Your task to perform on an android device: Open internet settings Image 0: 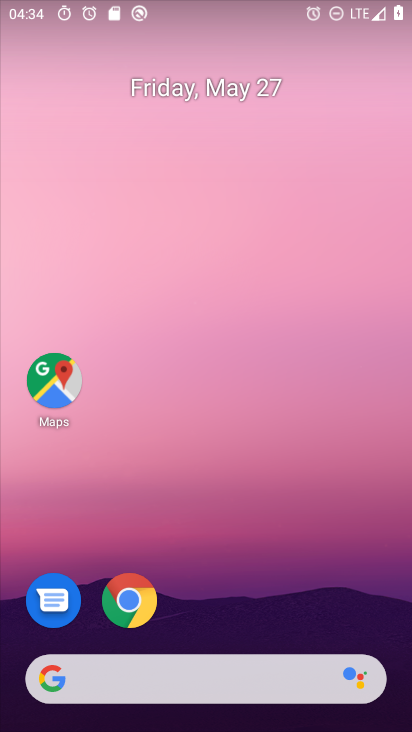
Step 0: click (171, 86)
Your task to perform on an android device: Open internet settings Image 1: 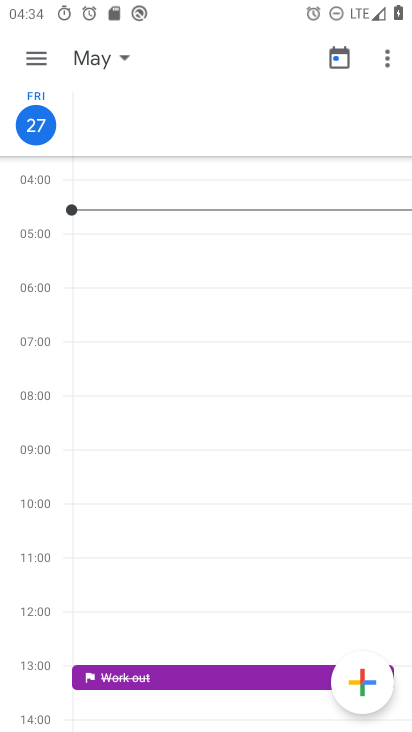
Step 1: press home button
Your task to perform on an android device: Open internet settings Image 2: 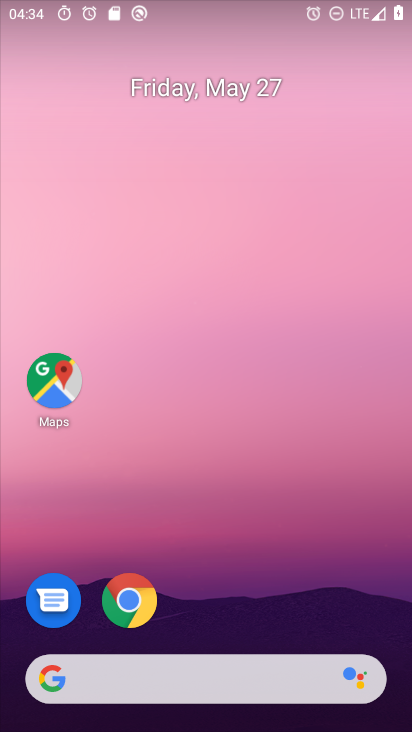
Step 2: drag from (247, 726) to (219, 193)
Your task to perform on an android device: Open internet settings Image 3: 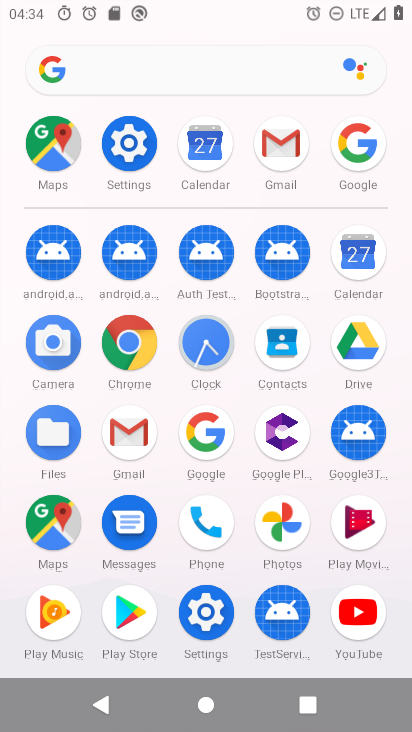
Step 3: click (128, 143)
Your task to perform on an android device: Open internet settings Image 4: 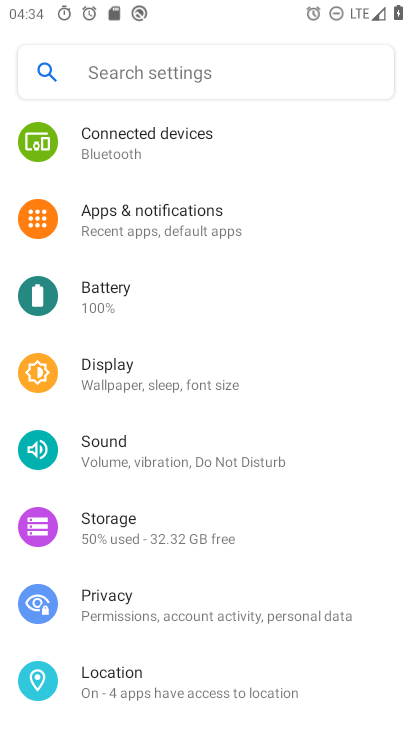
Step 4: drag from (212, 156) to (228, 603)
Your task to perform on an android device: Open internet settings Image 5: 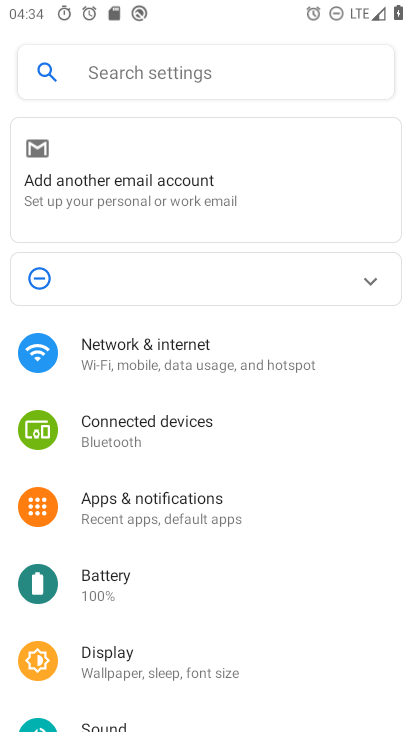
Step 5: click (142, 354)
Your task to perform on an android device: Open internet settings Image 6: 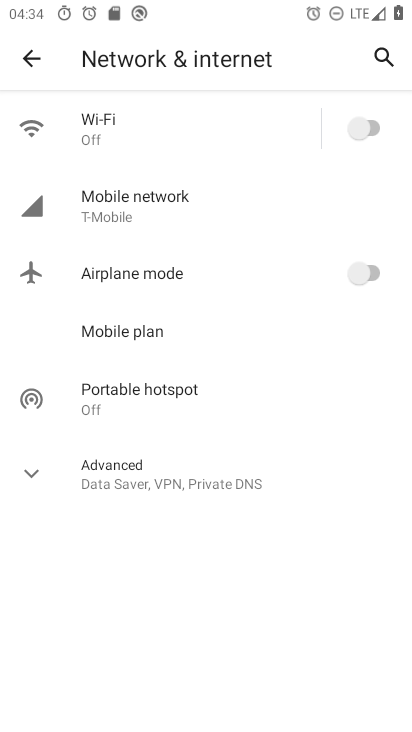
Step 6: task complete